Your task to perform on an android device: Search for pizza restaurants on Maps Image 0: 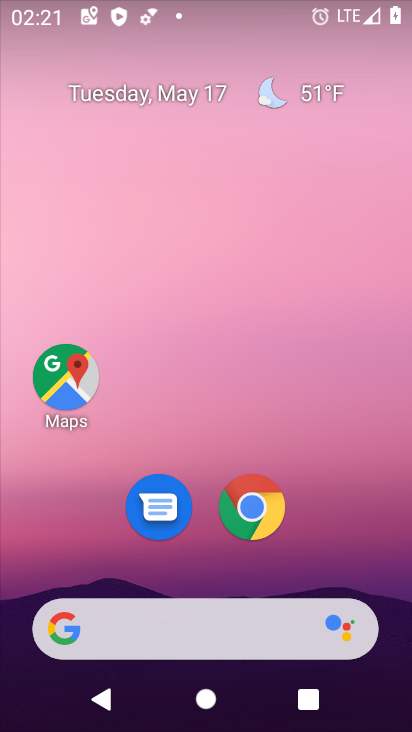
Step 0: click (62, 393)
Your task to perform on an android device: Search for pizza restaurants on Maps Image 1: 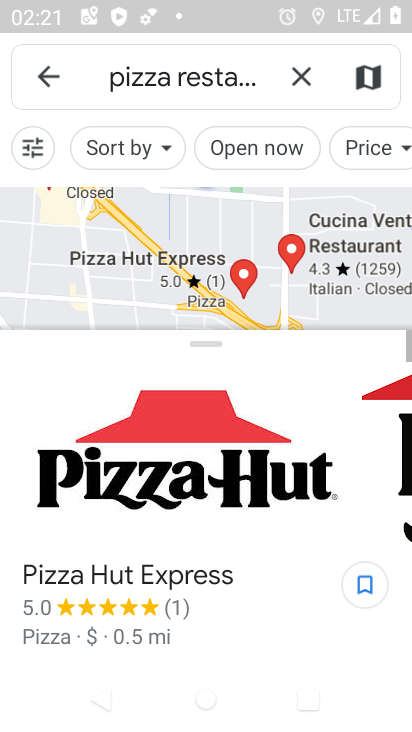
Step 1: task complete